Your task to perform on an android device: Add bose soundlink to the cart on walmart.com Image 0: 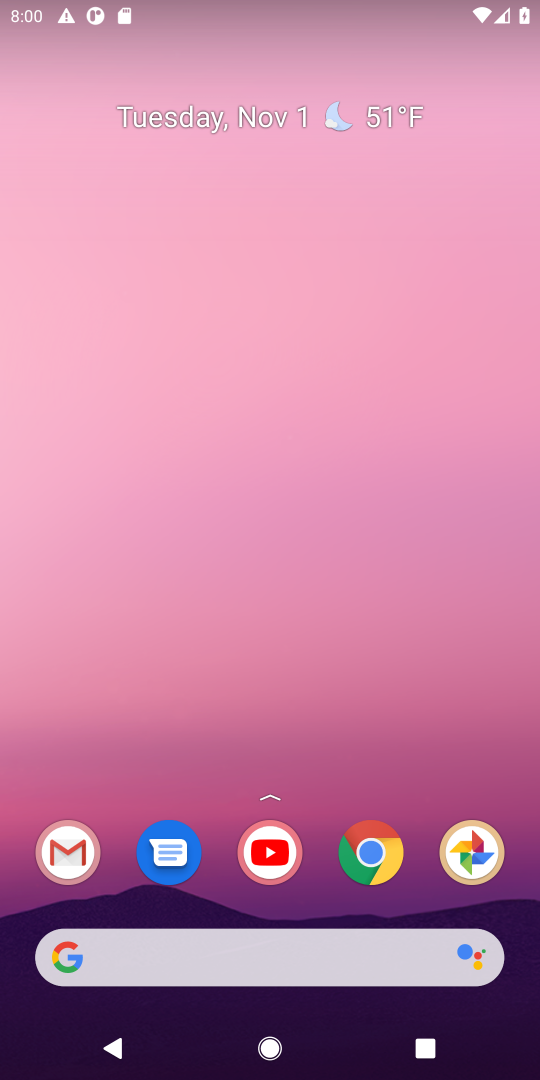
Step 0: drag from (290, 850) to (413, 212)
Your task to perform on an android device: Add bose soundlink to the cart on walmart.com Image 1: 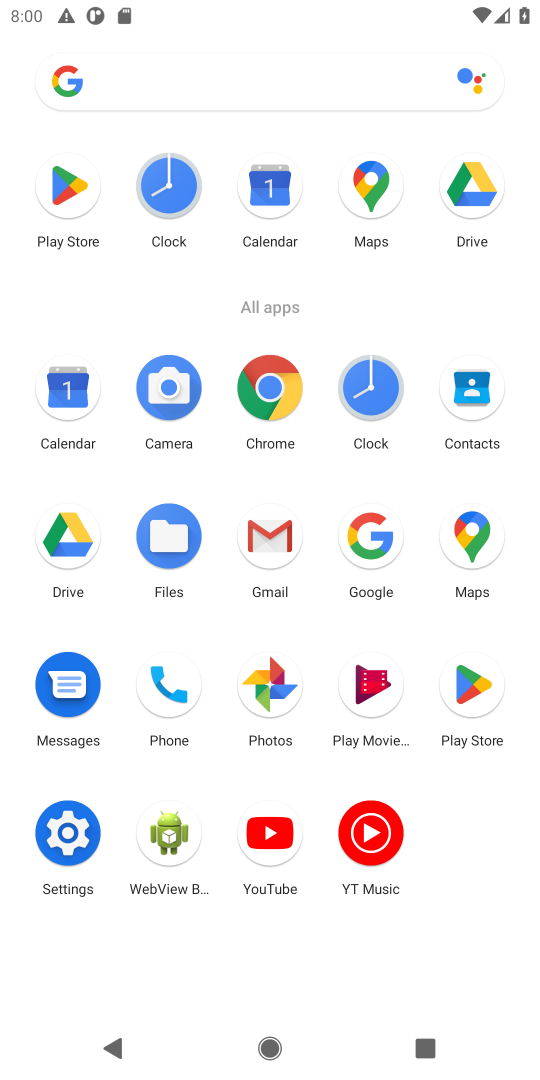
Step 1: click (378, 576)
Your task to perform on an android device: Add bose soundlink to the cart on walmart.com Image 2: 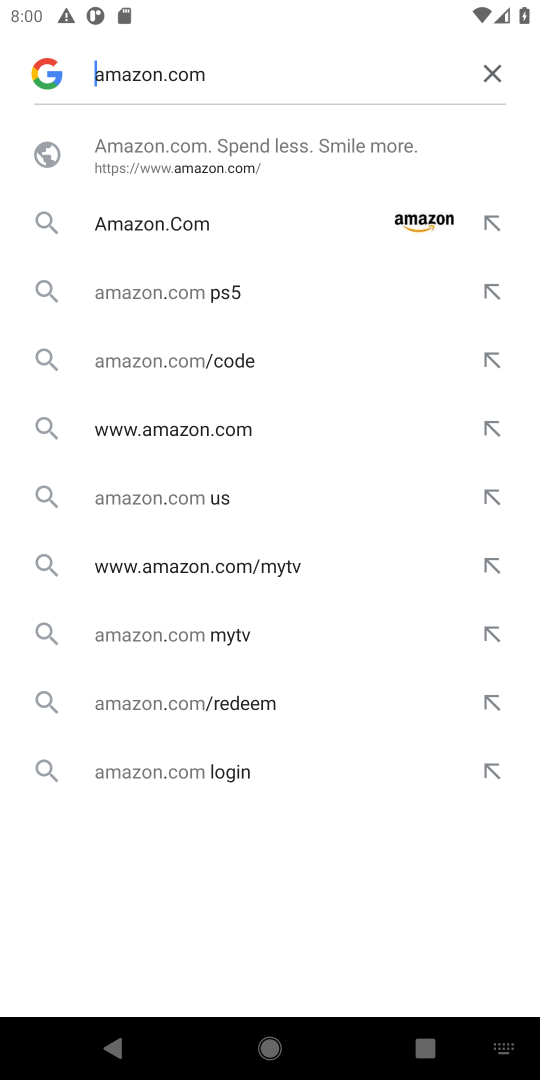
Step 2: click (494, 69)
Your task to perform on an android device: Add bose soundlink to the cart on walmart.com Image 3: 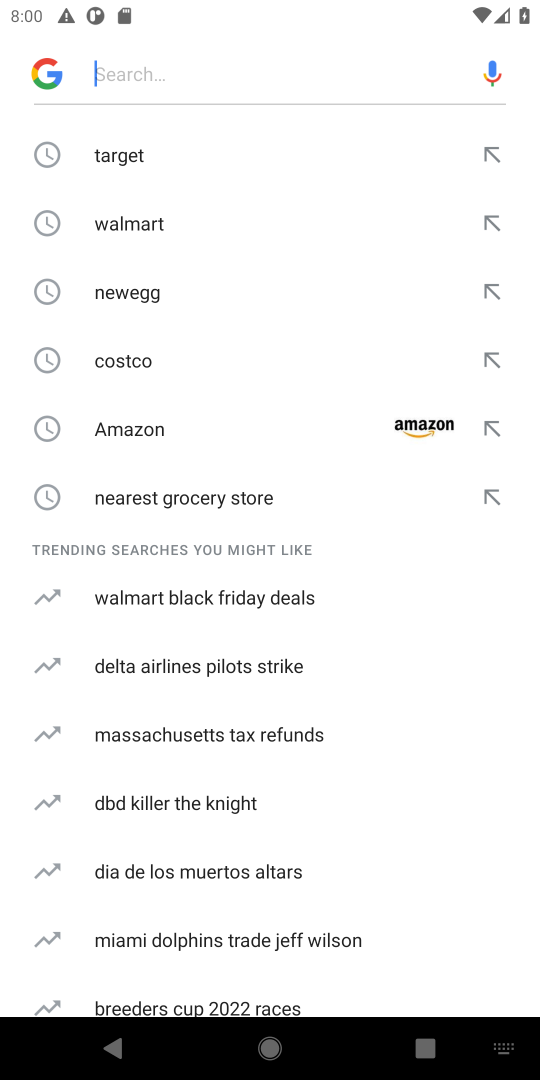
Step 3: type "walmart.com"
Your task to perform on an android device: Add bose soundlink to the cart on walmart.com Image 4: 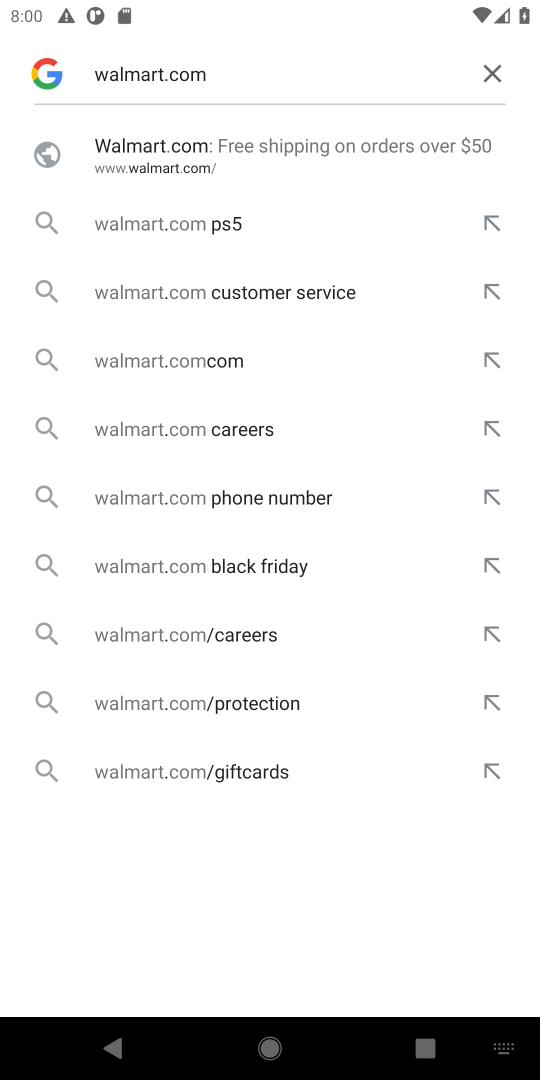
Step 4: click (239, 169)
Your task to perform on an android device: Add bose soundlink to the cart on walmart.com Image 5: 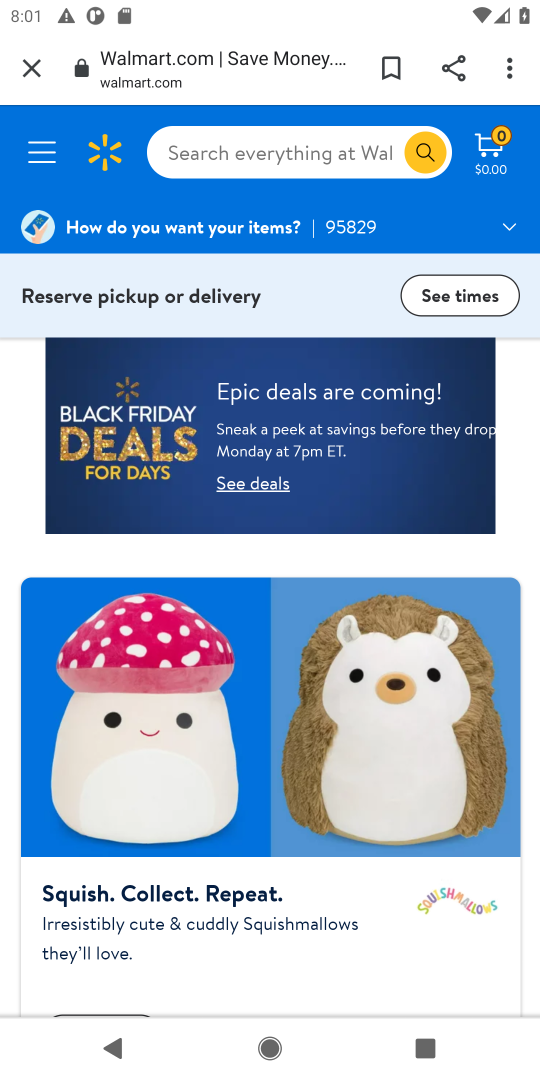
Step 5: click (240, 161)
Your task to perform on an android device: Add bose soundlink to the cart on walmart.com Image 6: 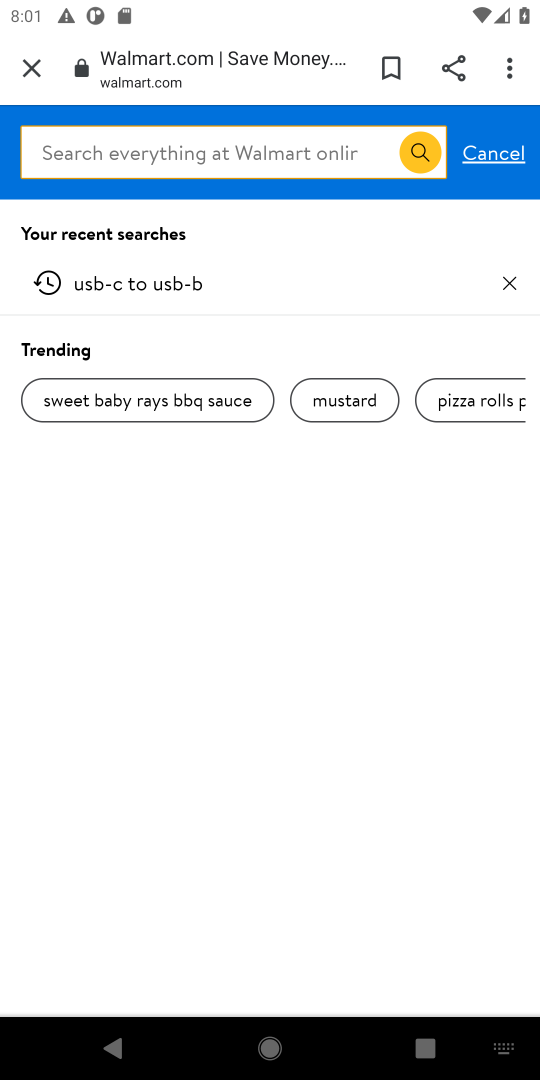
Step 6: type "bose soundlink"
Your task to perform on an android device: Add bose soundlink to the cart on walmart.com Image 7: 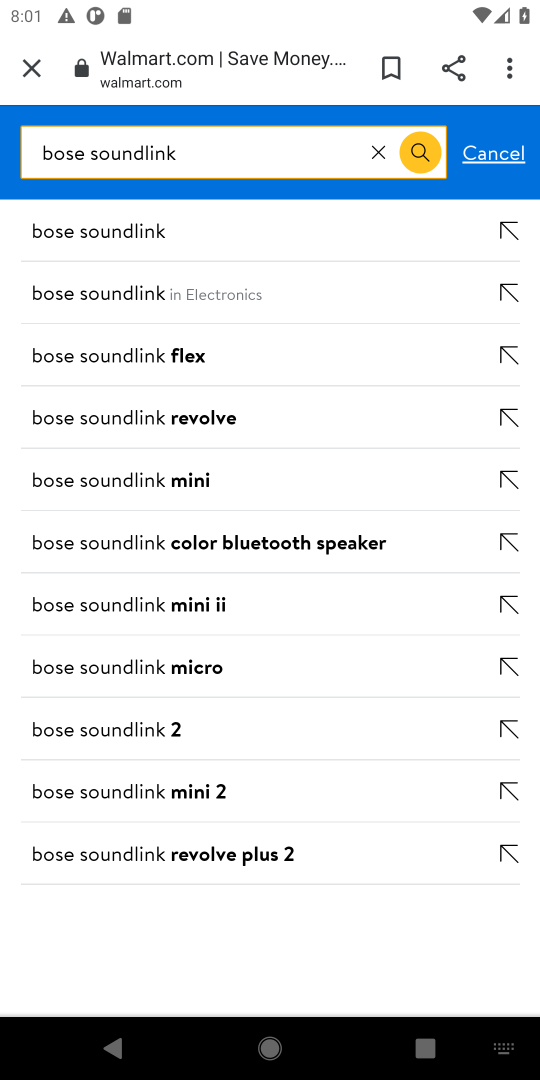
Step 7: click (209, 300)
Your task to perform on an android device: Add bose soundlink to the cart on walmart.com Image 8: 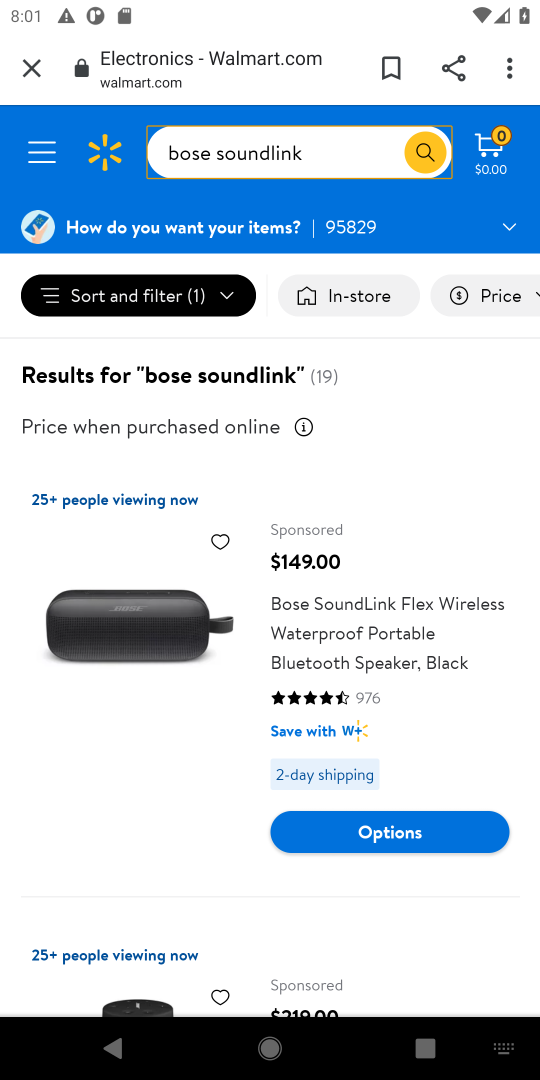
Step 8: click (176, 618)
Your task to perform on an android device: Add bose soundlink to the cart on walmart.com Image 9: 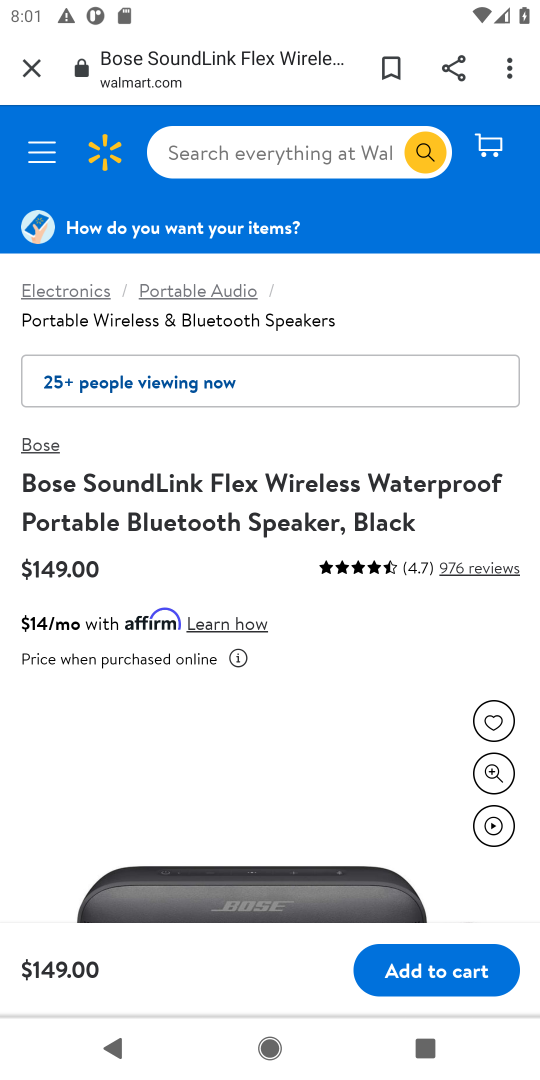
Step 9: drag from (263, 731) to (344, 375)
Your task to perform on an android device: Add bose soundlink to the cart on walmart.com Image 10: 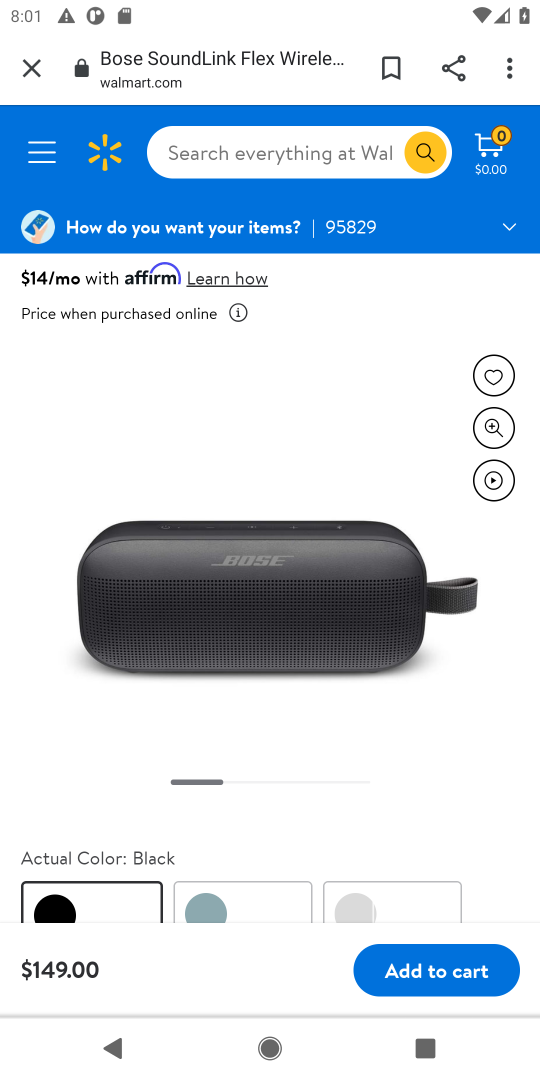
Step 10: click (453, 978)
Your task to perform on an android device: Add bose soundlink to the cart on walmart.com Image 11: 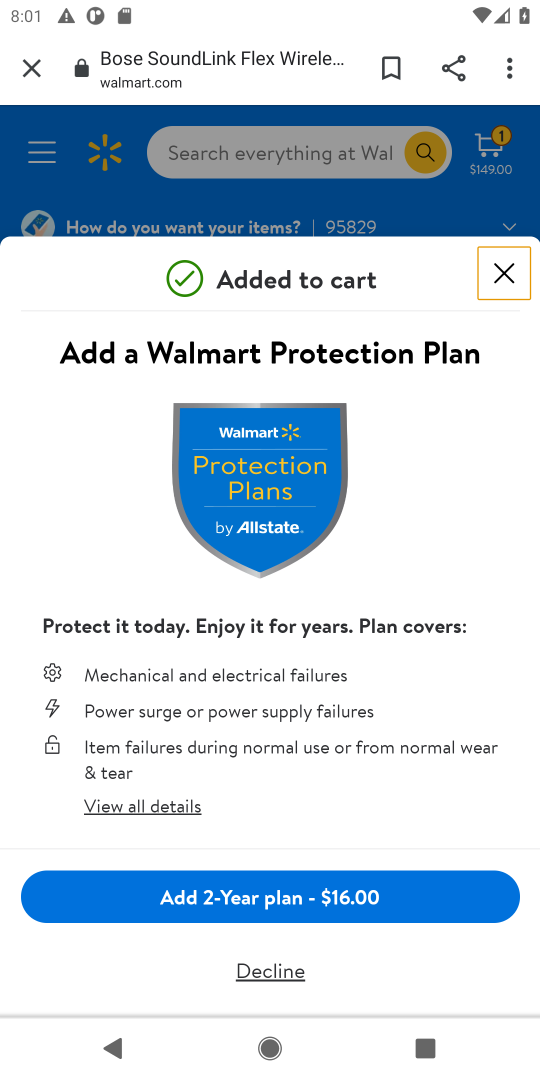
Step 11: task complete